Your task to perform on an android device: refresh tabs in the chrome app Image 0: 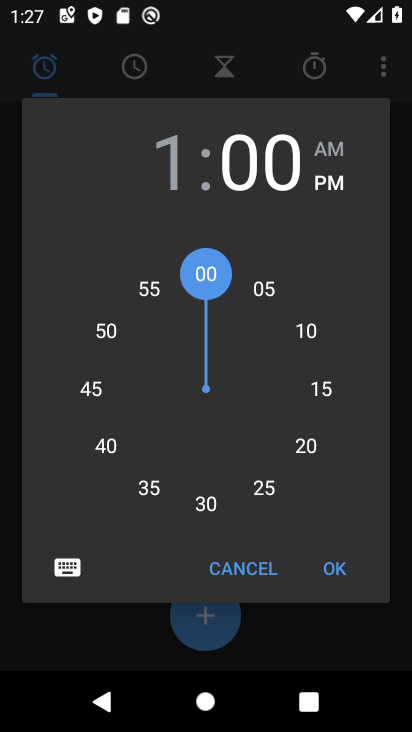
Step 0: press home button
Your task to perform on an android device: refresh tabs in the chrome app Image 1: 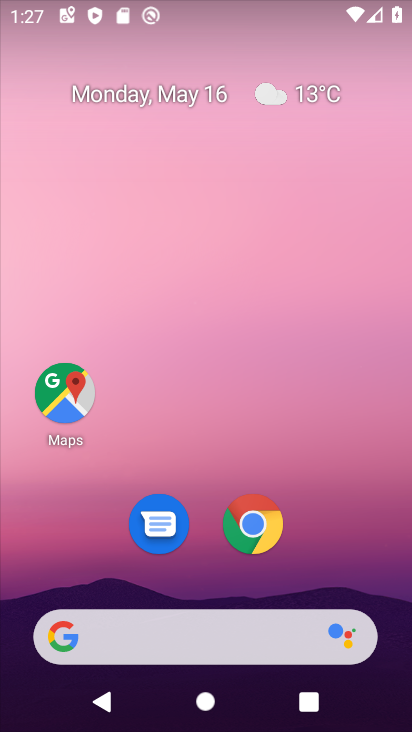
Step 1: click (250, 516)
Your task to perform on an android device: refresh tabs in the chrome app Image 2: 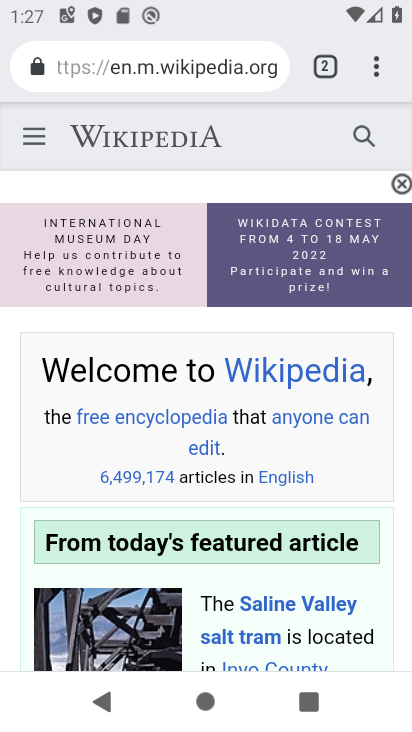
Step 2: click (378, 70)
Your task to perform on an android device: refresh tabs in the chrome app Image 3: 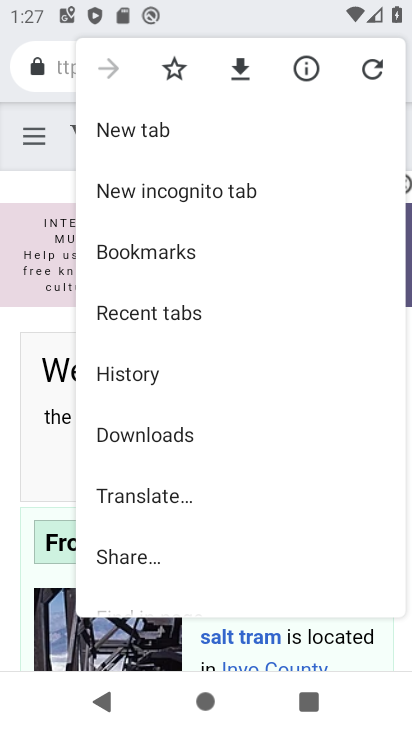
Step 3: click (372, 69)
Your task to perform on an android device: refresh tabs in the chrome app Image 4: 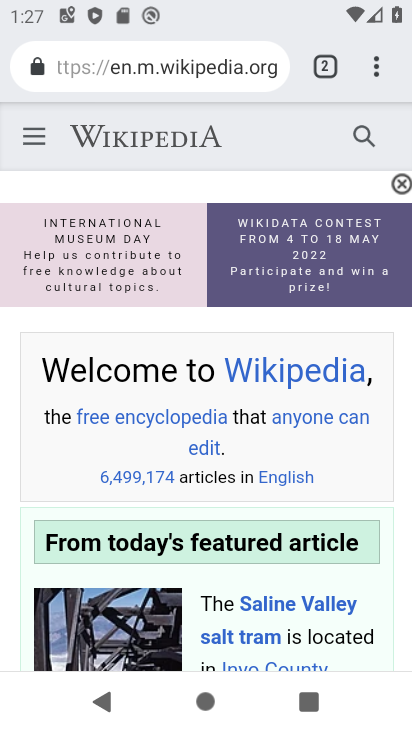
Step 4: task complete